Your task to perform on an android device: turn notification dots on Image 0: 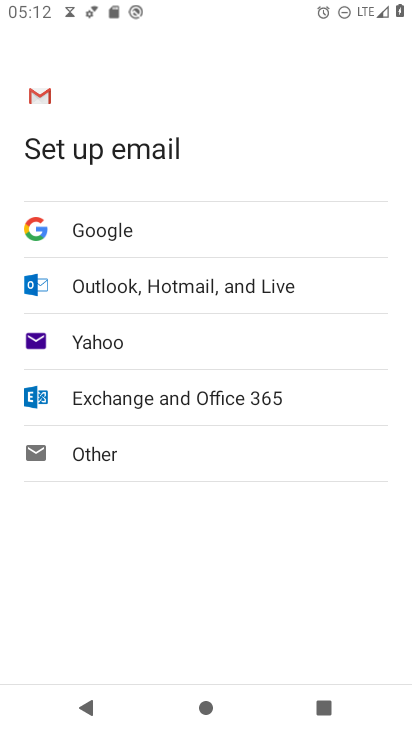
Step 0: press back button
Your task to perform on an android device: turn notification dots on Image 1: 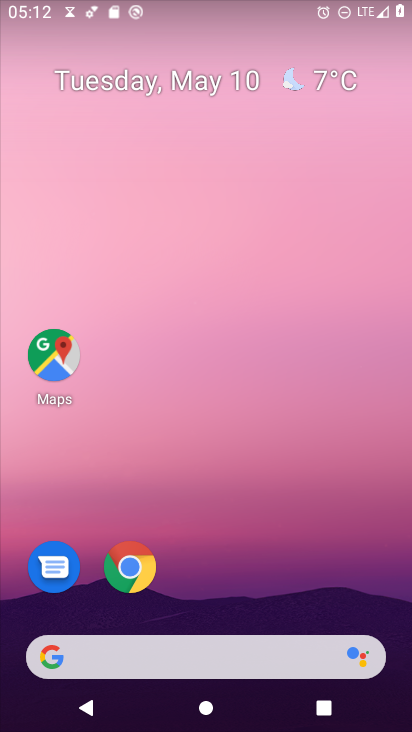
Step 1: drag from (246, 587) to (214, 157)
Your task to perform on an android device: turn notification dots on Image 2: 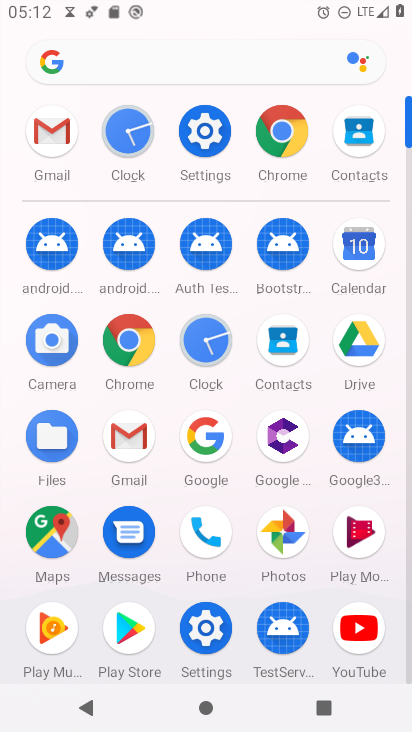
Step 2: click (205, 131)
Your task to perform on an android device: turn notification dots on Image 3: 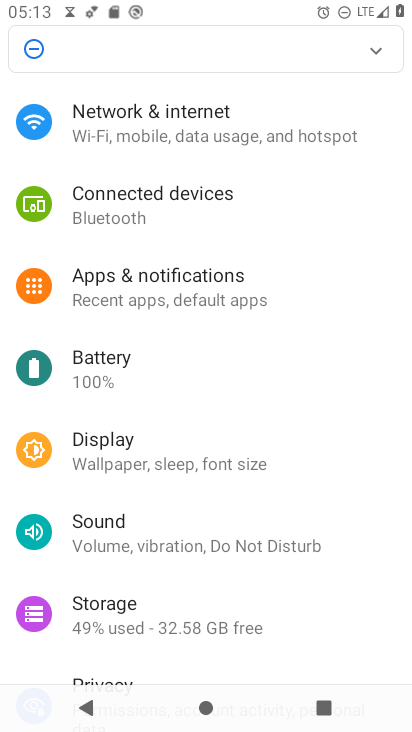
Step 3: click (128, 295)
Your task to perform on an android device: turn notification dots on Image 4: 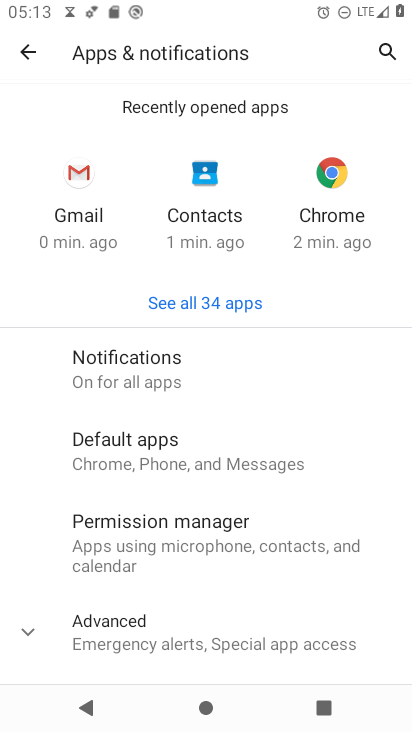
Step 4: click (133, 366)
Your task to perform on an android device: turn notification dots on Image 5: 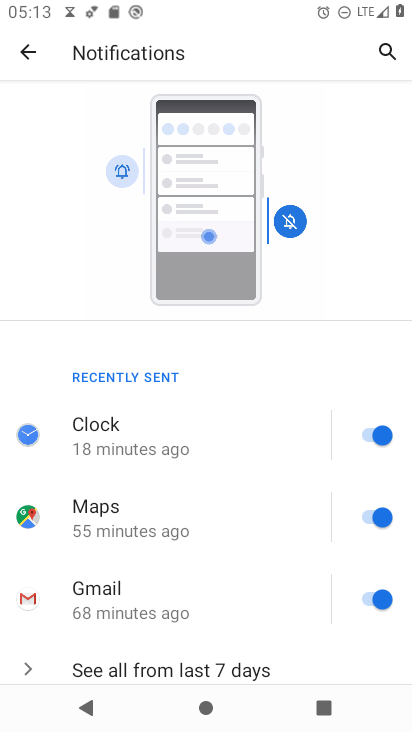
Step 5: drag from (176, 584) to (214, 391)
Your task to perform on an android device: turn notification dots on Image 6: 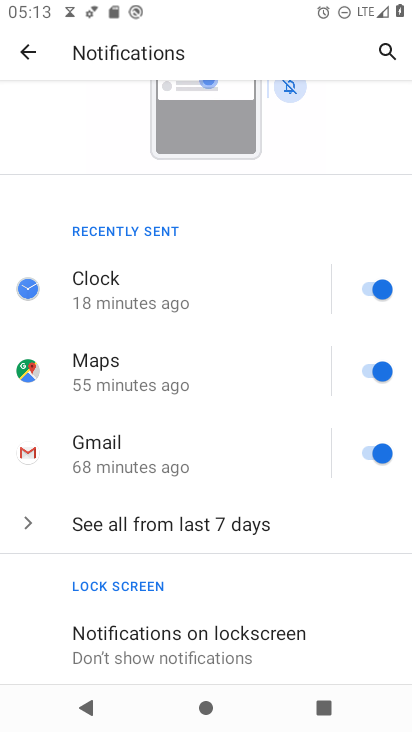
Step 6: drag from (180, 485) to (192, 335)
Your task to perform on an android device: turn notification dots on Image 7: 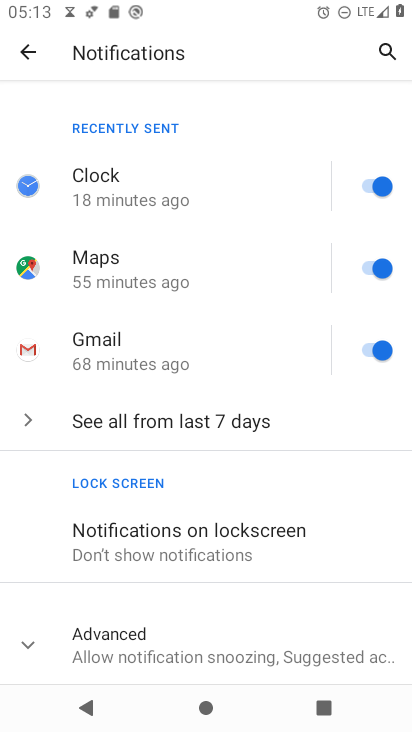
Step 7: click (134, 649)
Your task to perform on an android device: turn notification dots on Image 8: 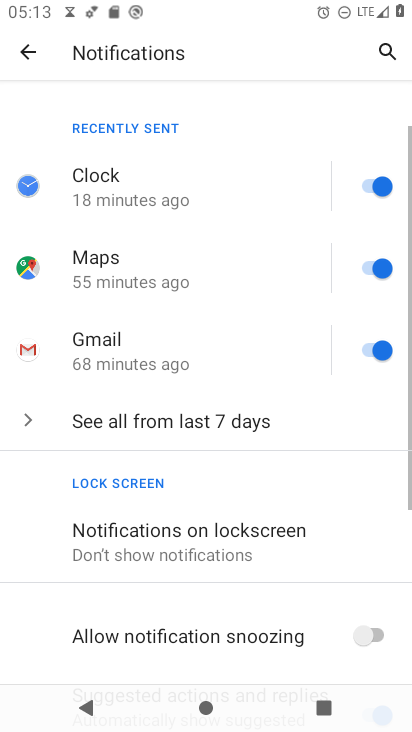
Step 8: task complete